Your task to perform on an android device: turn off notifications settings in the gmail app Image 0: 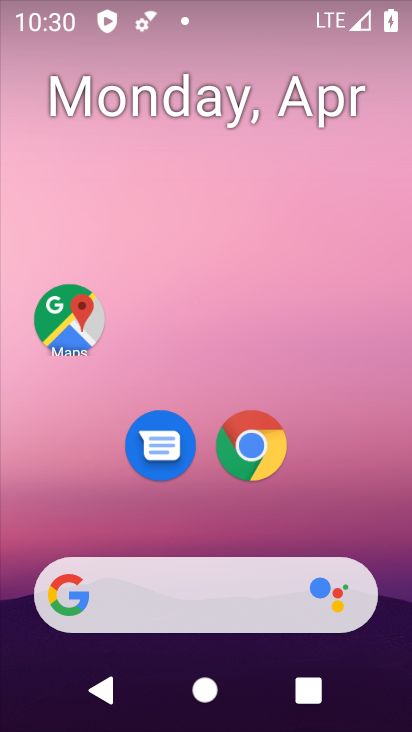
Step 0: drag from (263, 329) to (288, 152)
Your task to perform on an android device: turn off notifications settings in the gmail app Image 1: 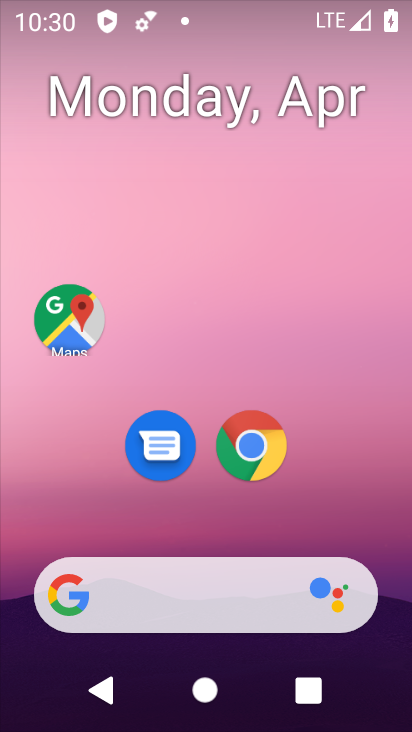
Step 1: drag from (214, 500) to (213, 178)
Your task to perform on an android device: turn off notifications settings in the gmail app Image 2: 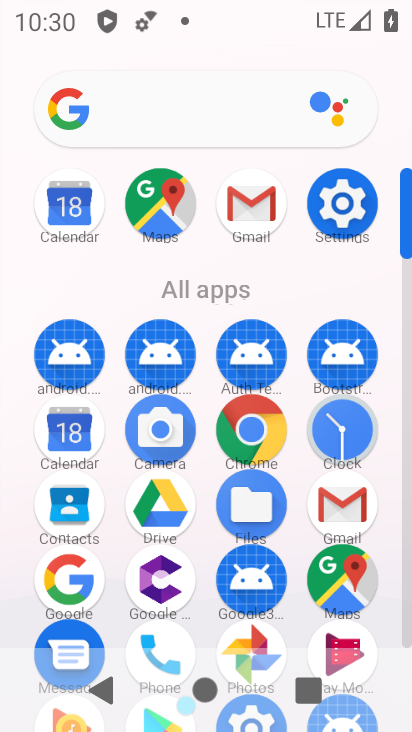
Step 2: click (244, 191)
Your task to perform on an android device: turn off notifications settings in the gmail app Image 3: 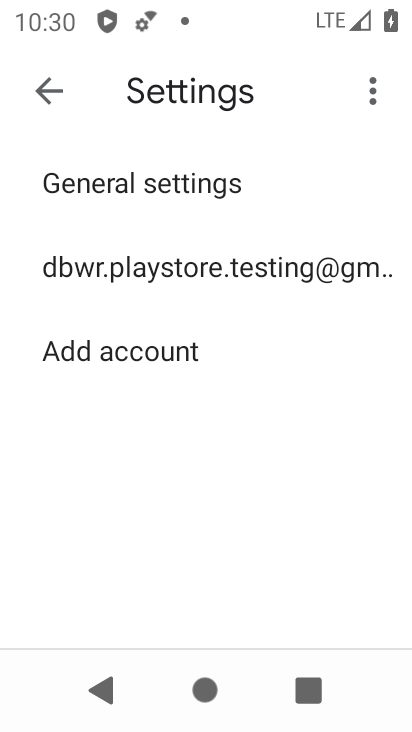
Step 3: click (157, 179)
Your task to perform on an android device: turn off notifications settings in the gmail app Image 4: 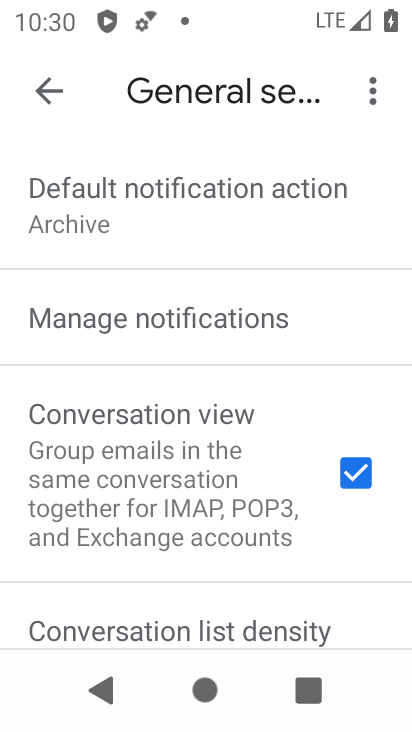
Step 4: click (150, 312)
Your task to perform on an android device: turn off notifications settings in the gmail app Image 5: 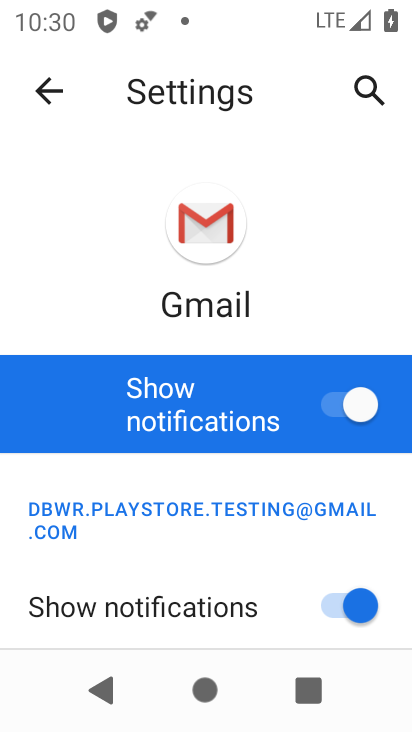
Step 5: click (337, 401)
Your task to perform on an android device: turn off notifications settings in the gmail app Image 6: 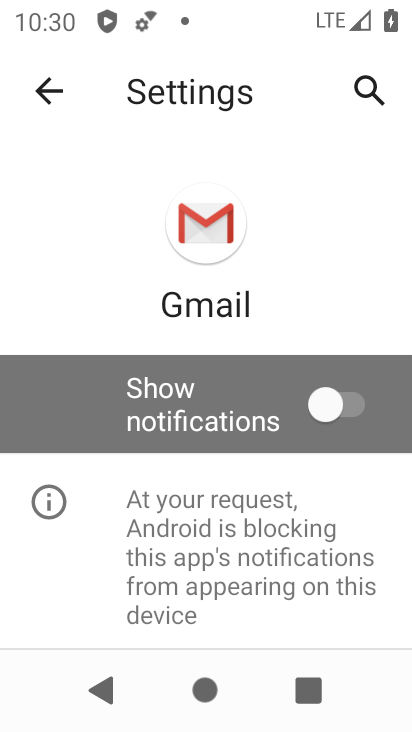
Step 6: task complete